Your task to perform on an android device: turn off location history Image 0: 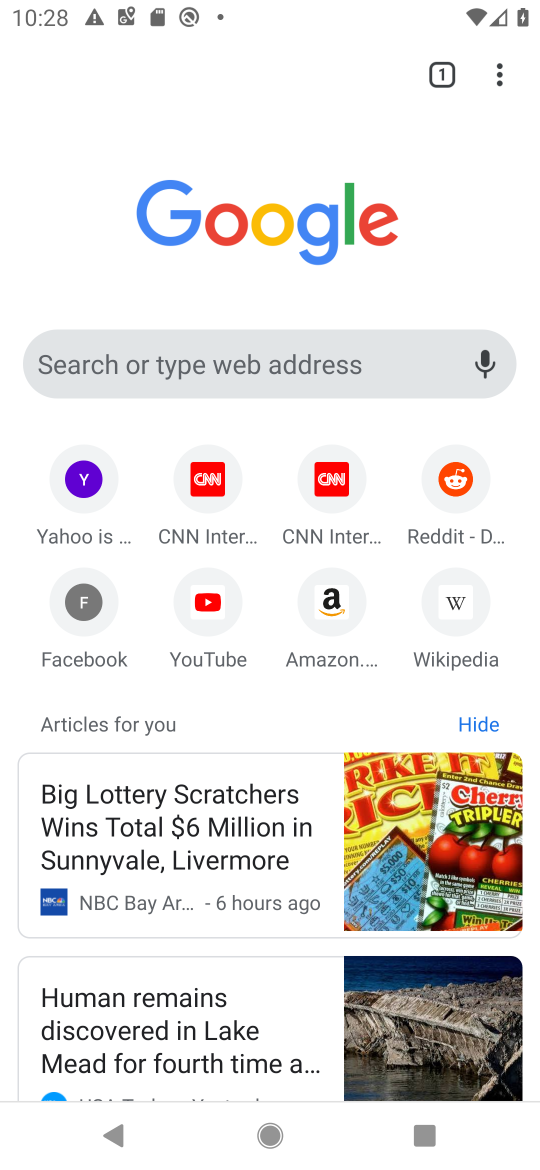
Step 0: press home button
Your task to perform on an android device: turn off location history Image 1: 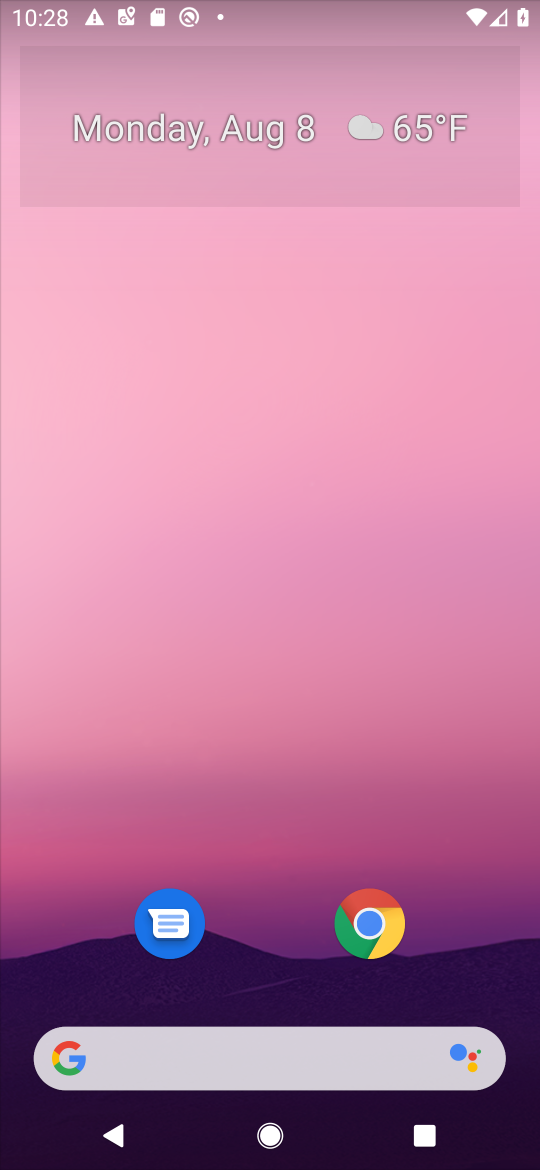
Step 1: drag from (60, 1134) to (197, 492)
Your task to perform on an android device: turn off location history Image 2: 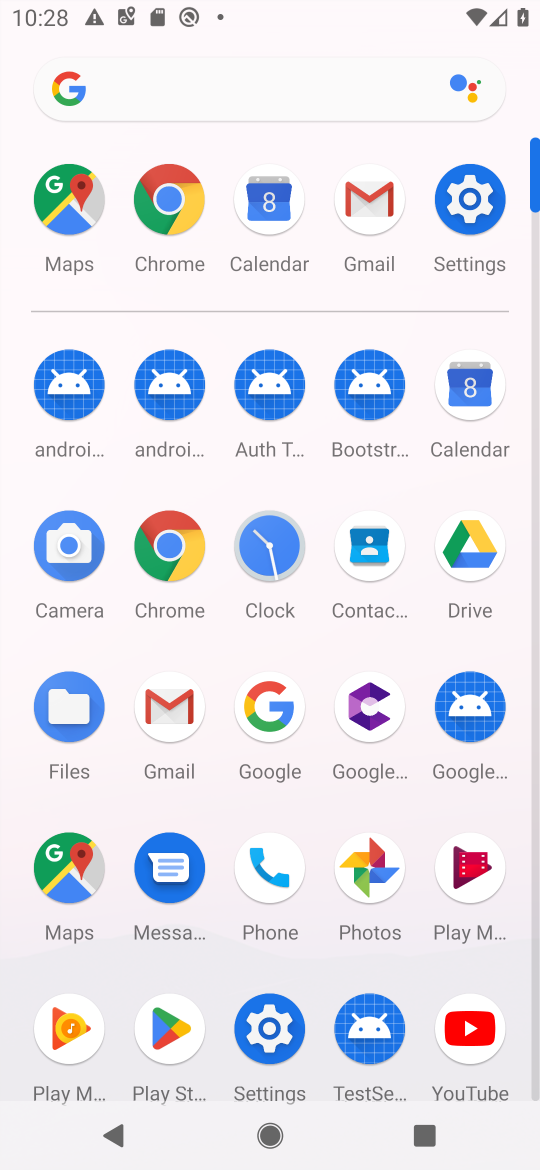
Step 2: click (269, 1042)
Your task to perform on an android device: turn off location history Image 3: 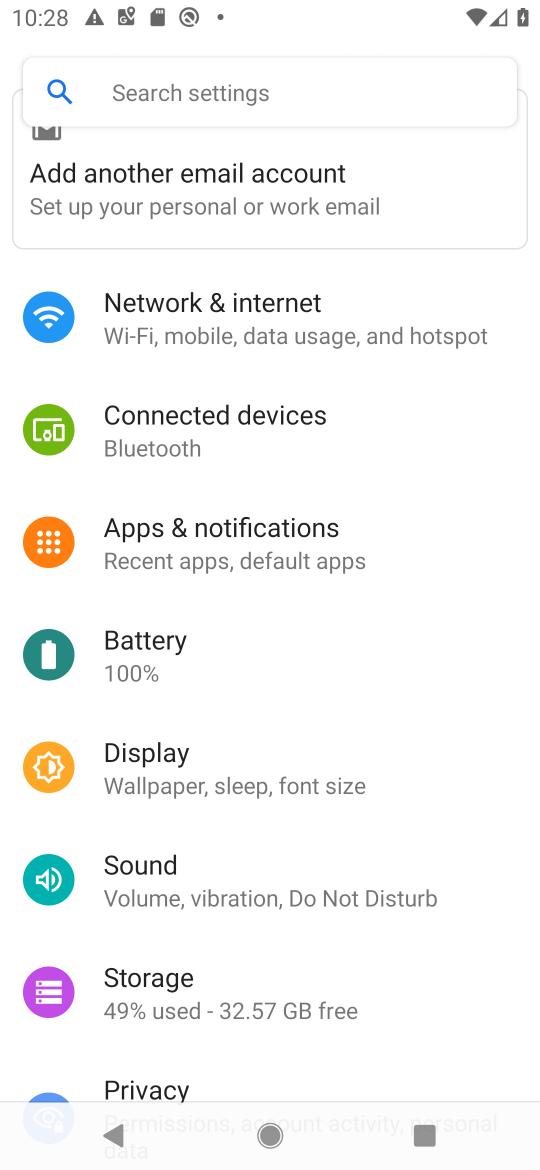
Step 3: drag from (440, 1026) to (464, 480)
Your task to perform on an android device: turn off location history Image 4: 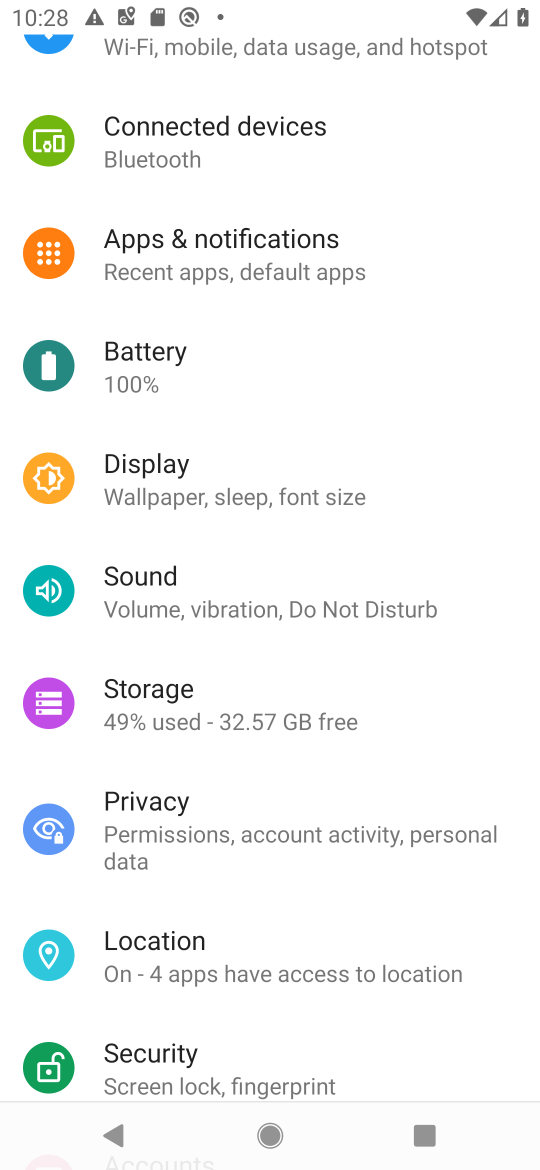
Step 4: click (166, 951)
Your task to perform on an android device: turn off location history Image 5: 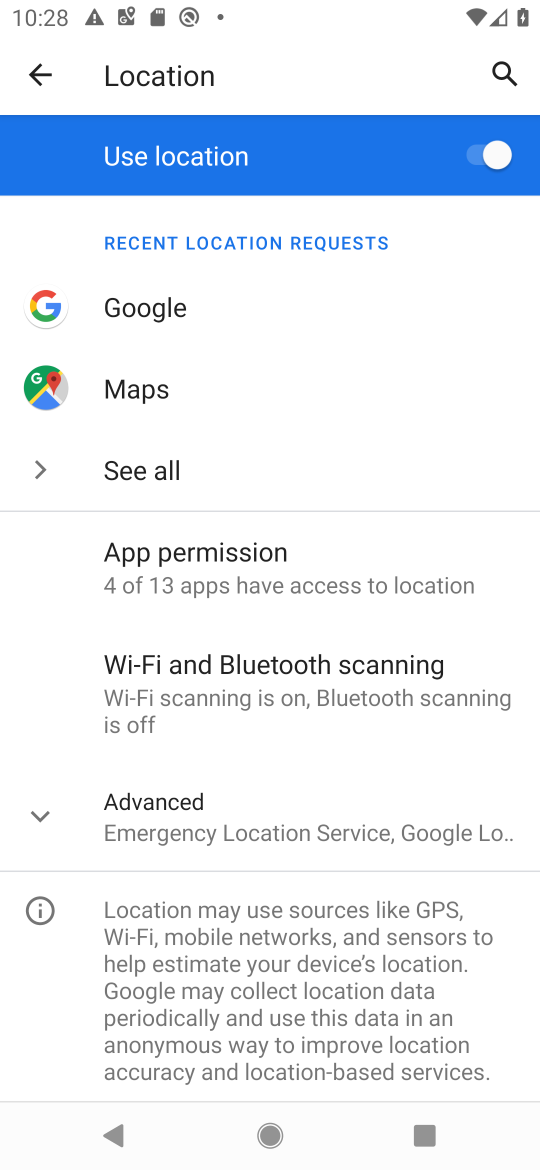
Step 5: click (198, 817)
Your task to perform on an android device: turn off location history Image 6: 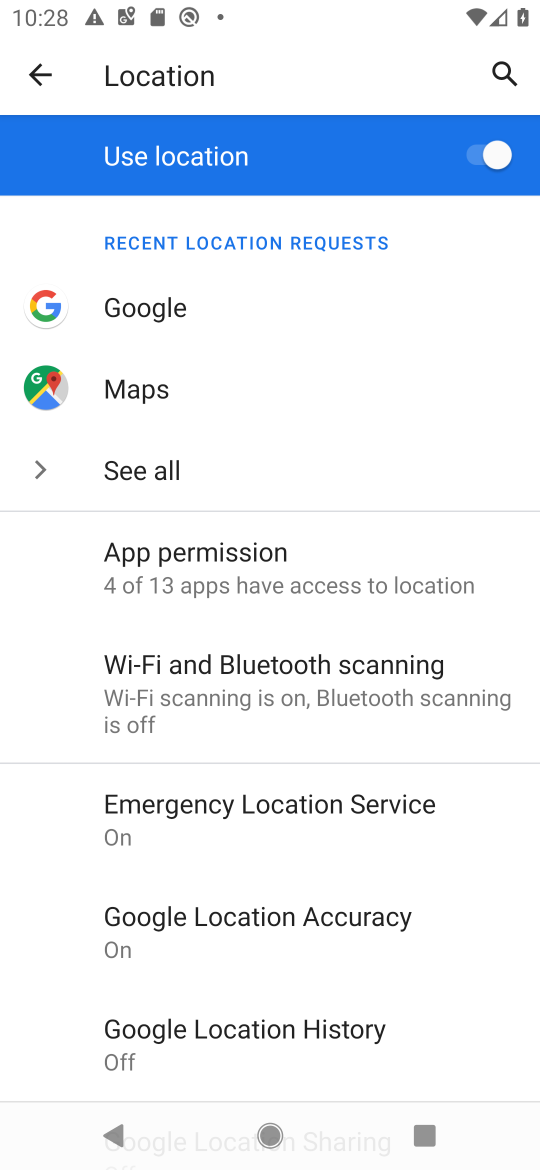
Step 6: click (185, 1028)
Your task to perform on an android device: turn off location history Image 7: 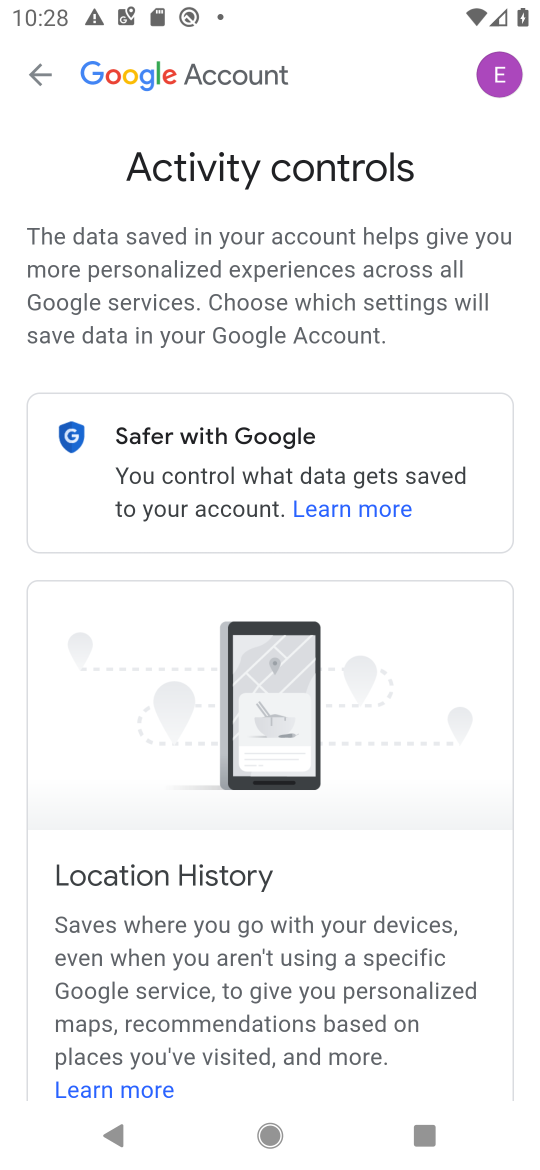
Step 7: task complete